Your task to perform on an android device: Check the news Image 0: 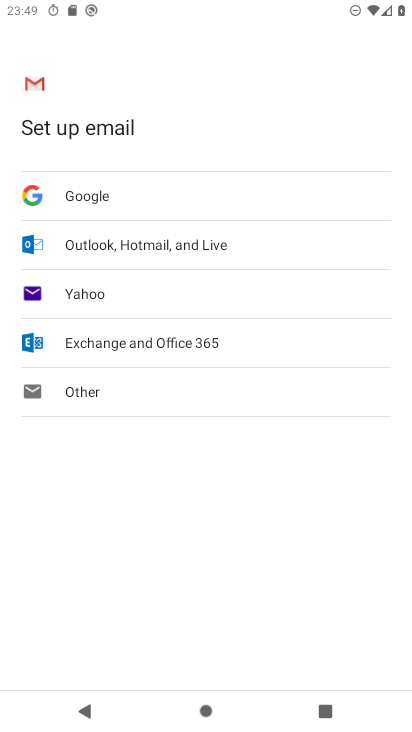
Step 0: press home button
Your task to perform on an android device: Check the news Image 1: 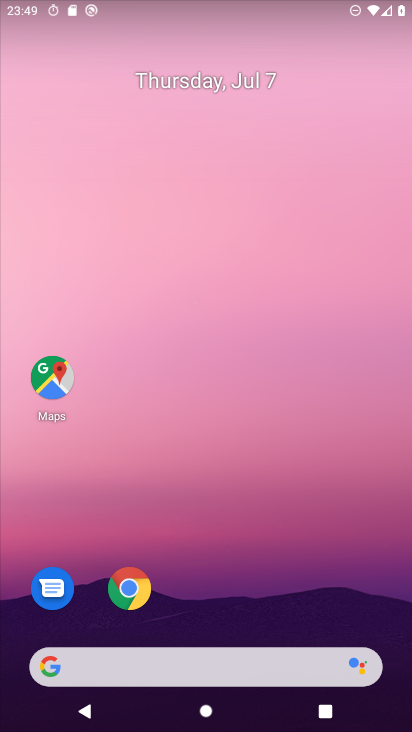
Step 1: drag from (239, 591) to (242, 44)
Your task to perform on an android device: Check the news Image 2: 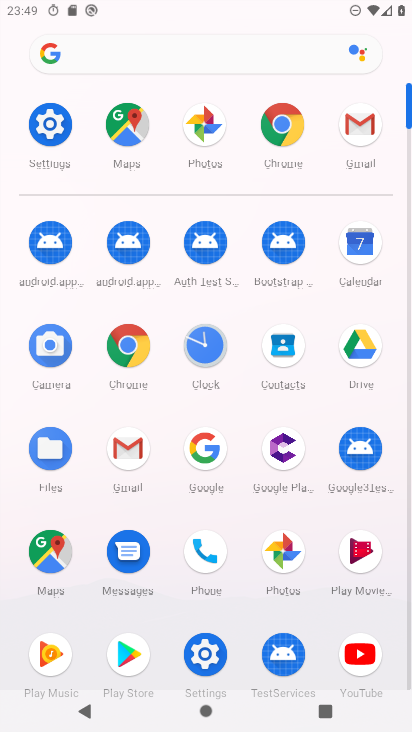
Step 2: click (281, 120)
Your task to perform on an android device: Check the news Image 3: 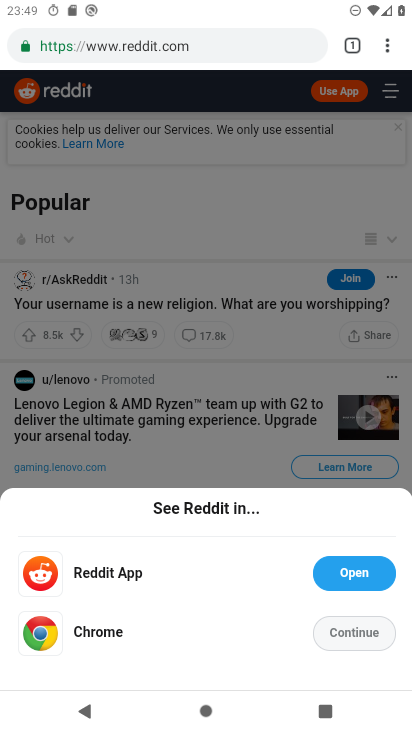
Step 3: click (223, 36)
Your task to perform on an android device: Check the news Image 4: 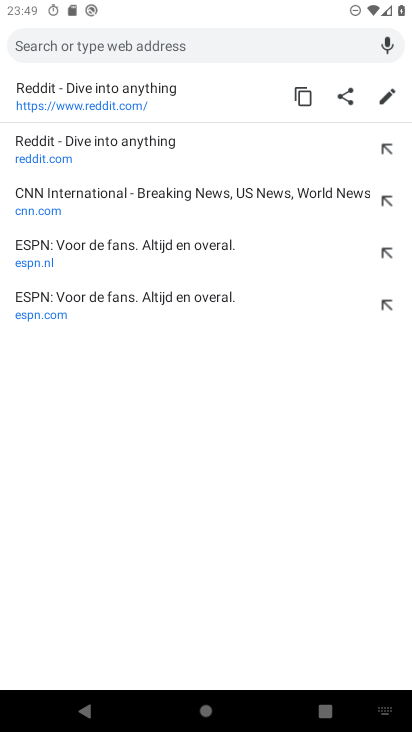
Step 4: type "news"
Your task to perform on an android device: Check the news Image 5: 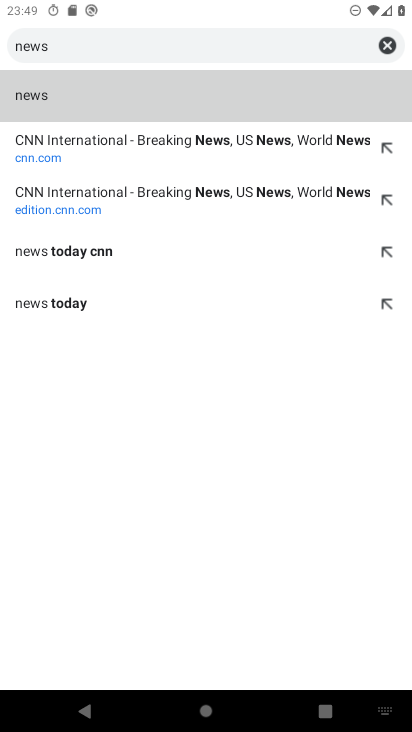
Step 5: click (42, 89)
Your task to perform on an android device: Check the news Image 6: 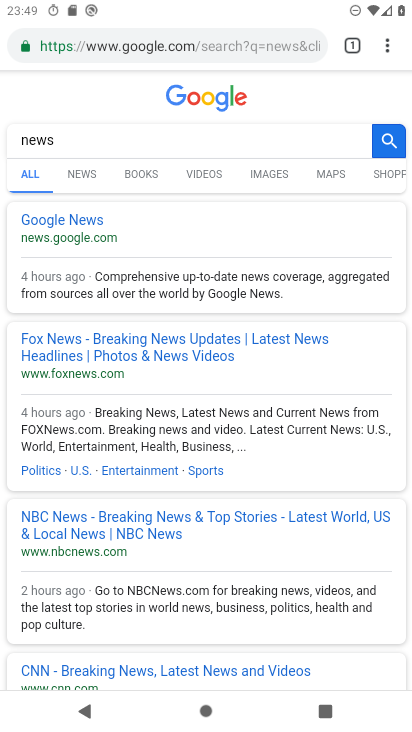
Step 6: click (79, 222)
Your task to perform on an android device: Check the news Image 7: 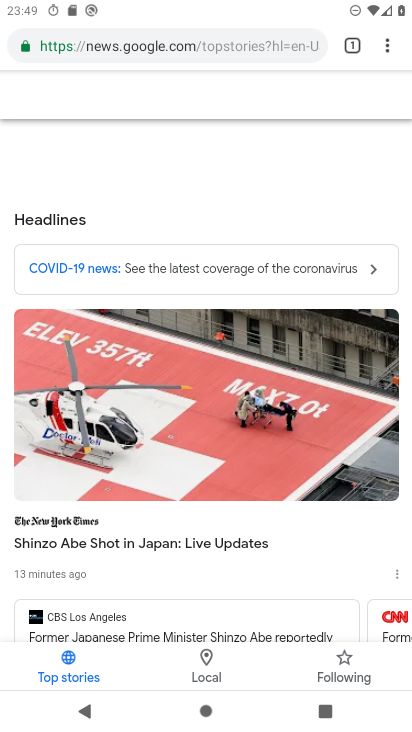
Step 7: task complete